Your task to perform on an android device: clear all cookies in the chrome app Image 0: 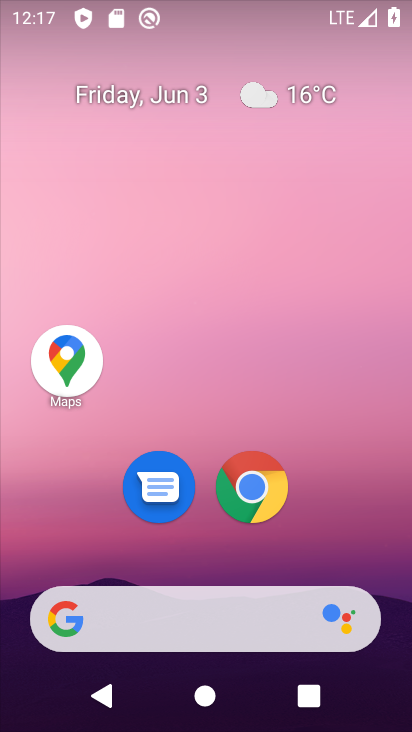
Step 0: click (246, 508)
Your task to perform on an android device: clear all cookies in the chrome app Image 1: 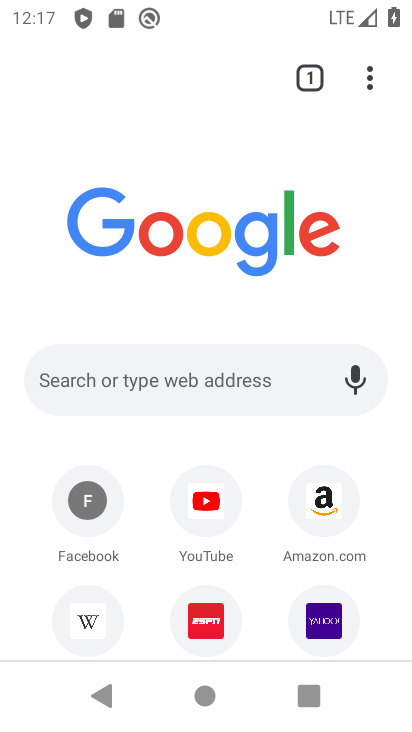
Step 1: click (363, 84)
Your task to perform on an android device: clear all cookies in the chrome app Image 2: 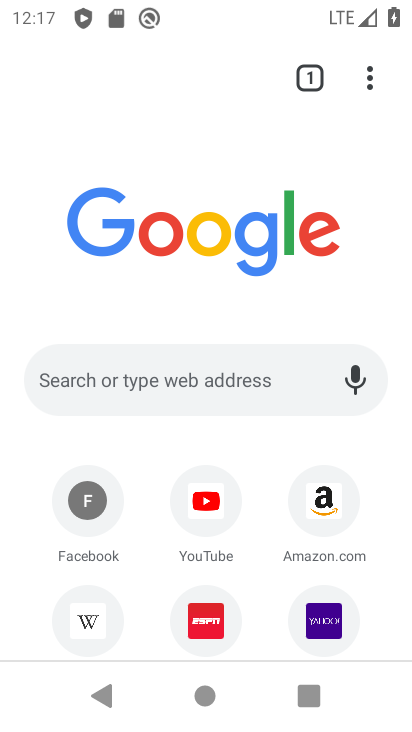
Step 2: drag from (367, 87) to (232, 540)
Your task to perform on an android device: clear all cookies in the chrome app Image 3: 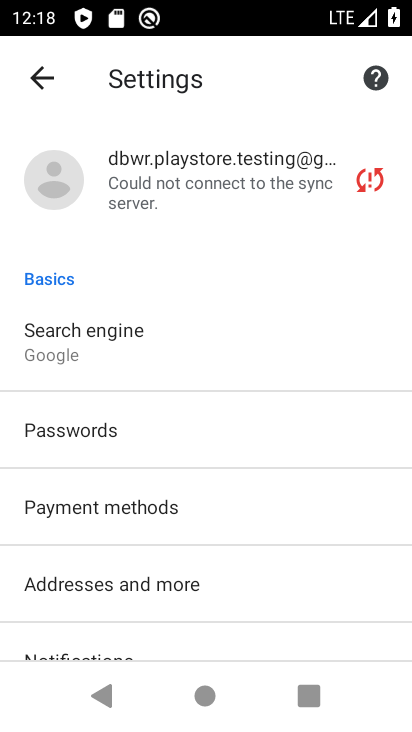
Step 3: drag from (261, 637) to (259, 136)
Your task to perform on an android device: clear all cookies in the chrome app Image 4: 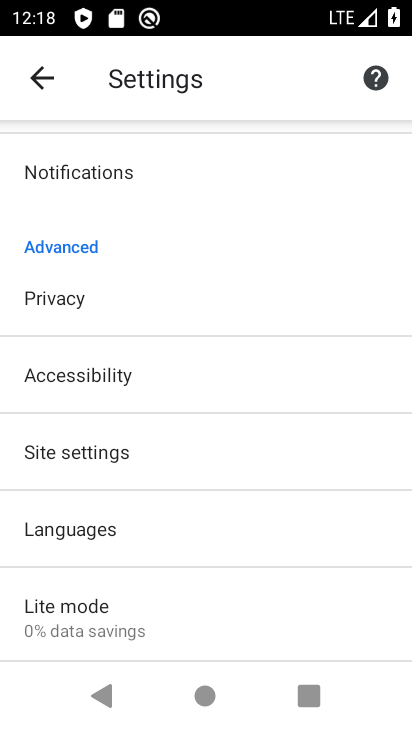
Step 4: click (117, 460)
Your task to perform on an android device: clear all cookies in the chrome app Image 5: 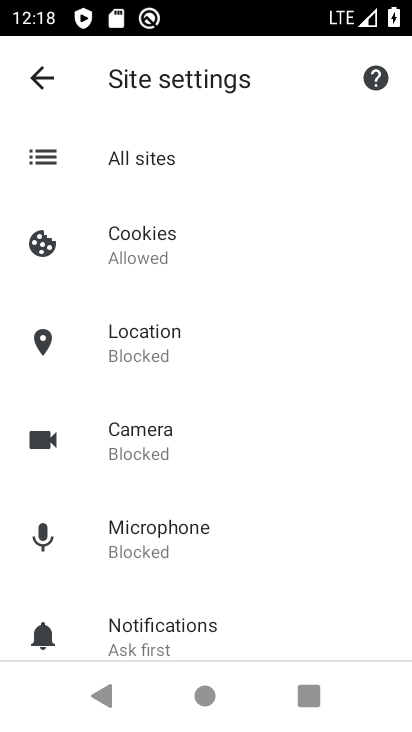
Step 5: click (133, 255)
Your task to perform on an android device: clear all cookies in the chrome app Image 6: 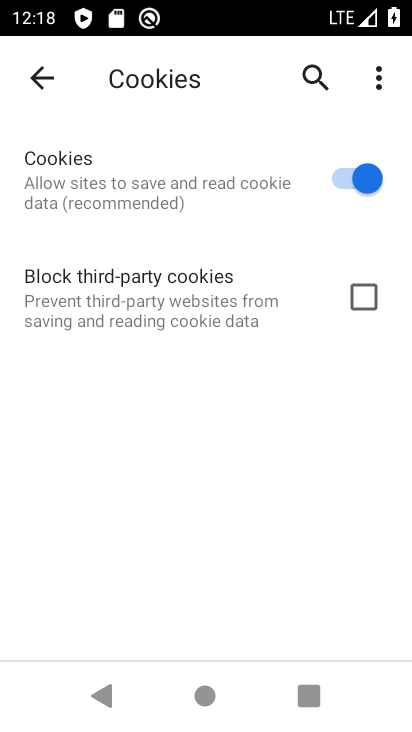
Step 6: task complete